Your task to perform on an android device: delete the emails in spam in the gmail app Image 0: 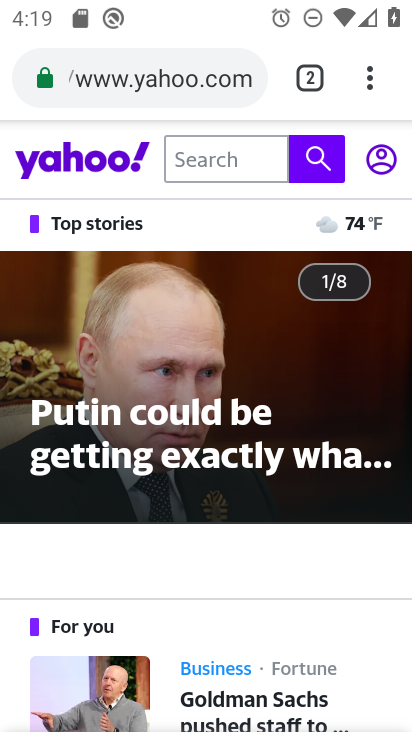
Step 0: press home button
Your task to perform on an android device: delete the emails in spam in the gmail app Image 1: 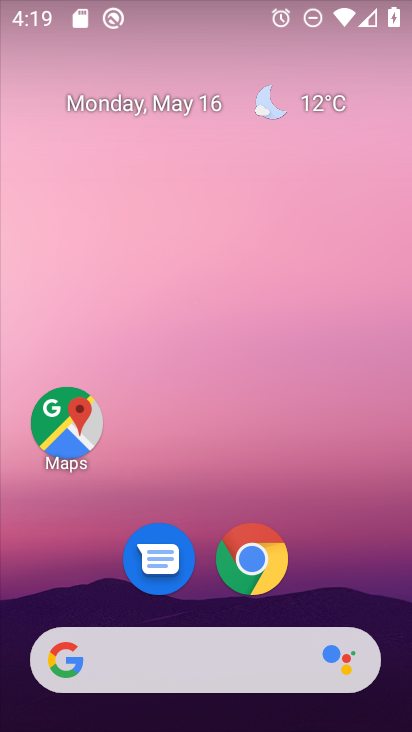
Step 1: drag from (333, 587) to (266, 67)
Your task to perform on an android device: delete the emails in spam in the gmail app Image 2: 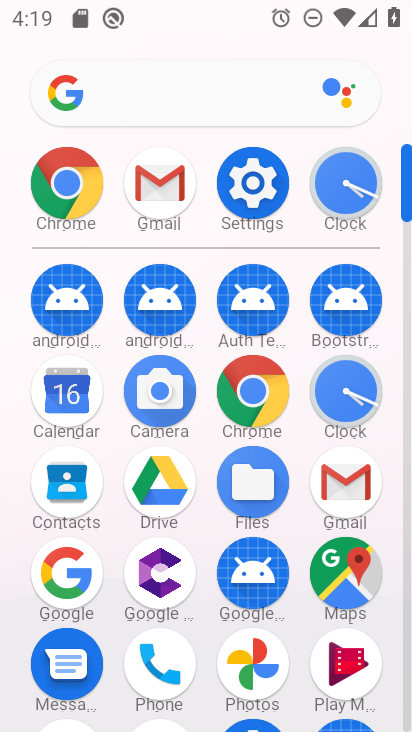
Step 2: click (163, 159)
Your task to perform on an android device: delete the emails in spam in the gmail app Image 3: 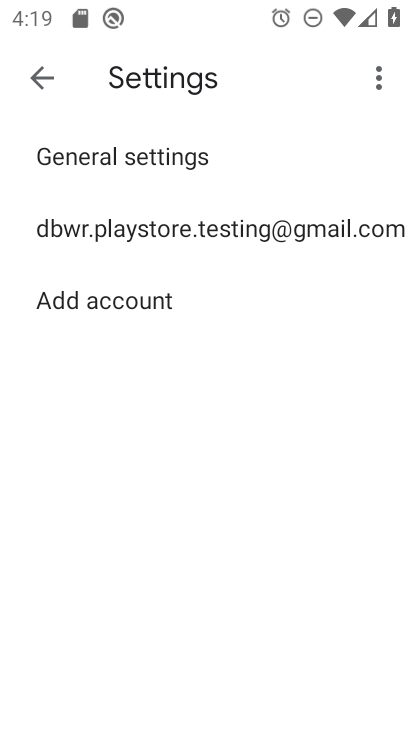
Step 3: click (34, 94)
Your task to perform on an android device: delete the emails in spam in the gmail app Image 4: 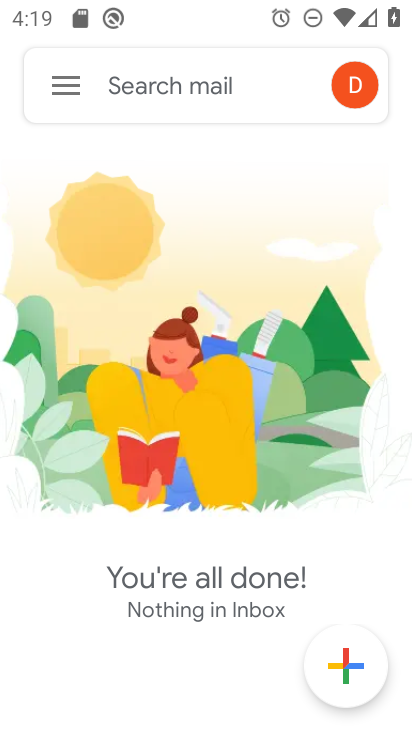
Step 4: click (34, 94)
Your task to perform on an android device: delete the emails in spam in the gmail app Image 5: 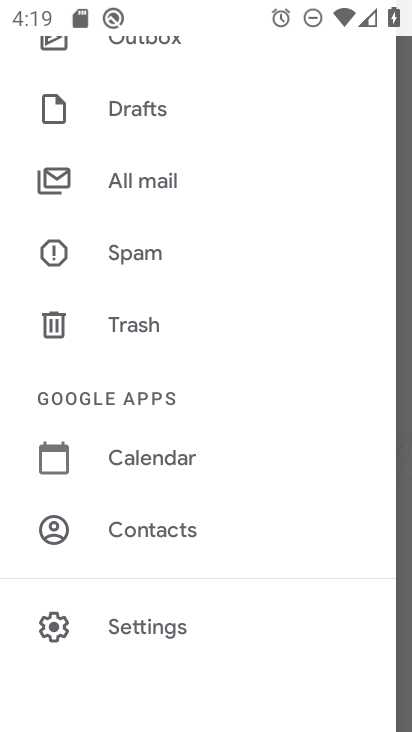
Step 5: click (93, 263)
Your task to perform on an android device: delete the emails in spam in the gmail app Image 6: 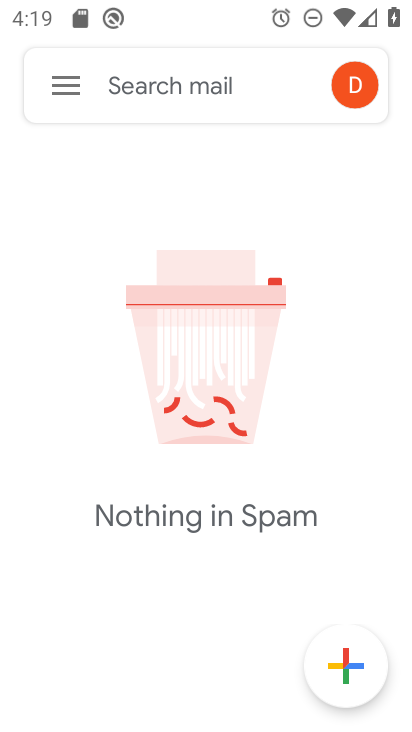
Step 6: task complete